Your task to perform on an android device: turn on priority inbox in the gmail app Image 0: 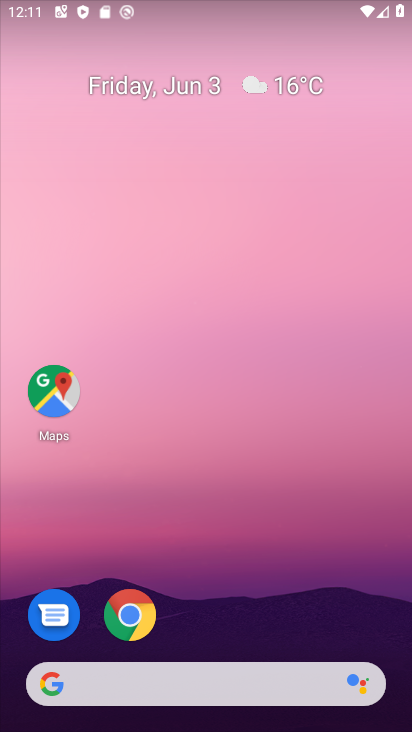
Step 0: drag from (238, 630) to (251, 340)
Your task to perform on an android device: turn on priority inbox in the gmail app Image 1: 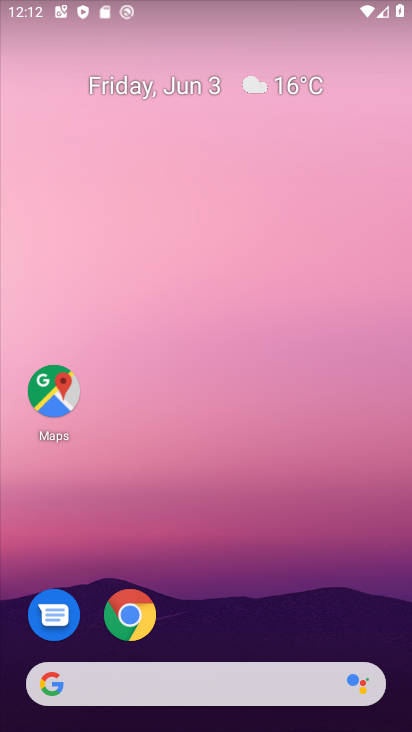
Step 1: drag from (217, 605) to (232, 289)
Your task to perform on an android device: turn on priority inbox in the gmail app Image 2: 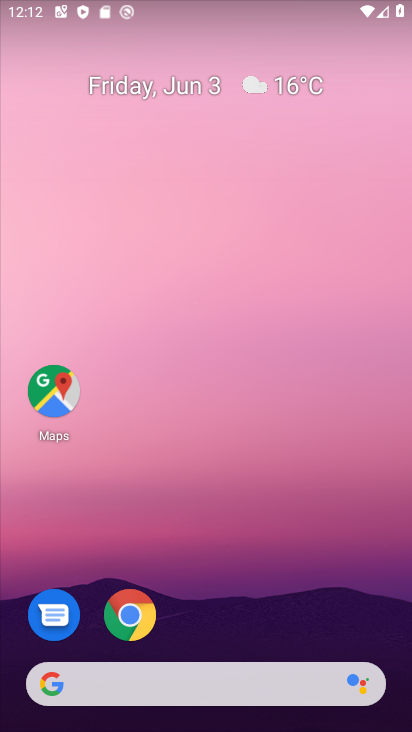
Step 2: drag from (216, 537) to (236, 225)
Your task to perform on an android device: turn on priority inbox in the gmail app Image 3: 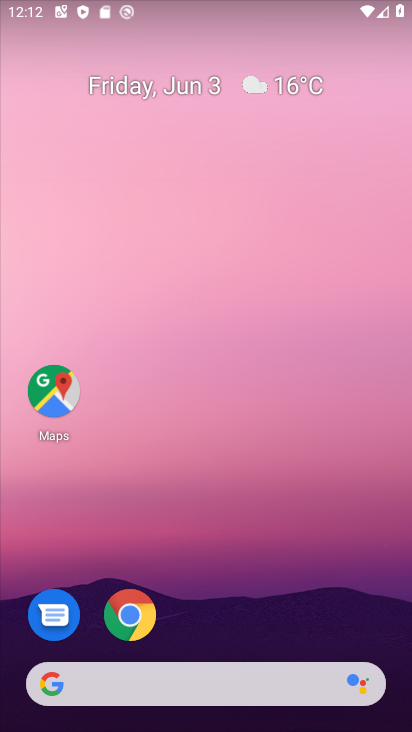
Step 3: drag from (220, 500) to (237, 209)
Your task to perform on an android device: turn on priority inbox in the gmail app Image 4: 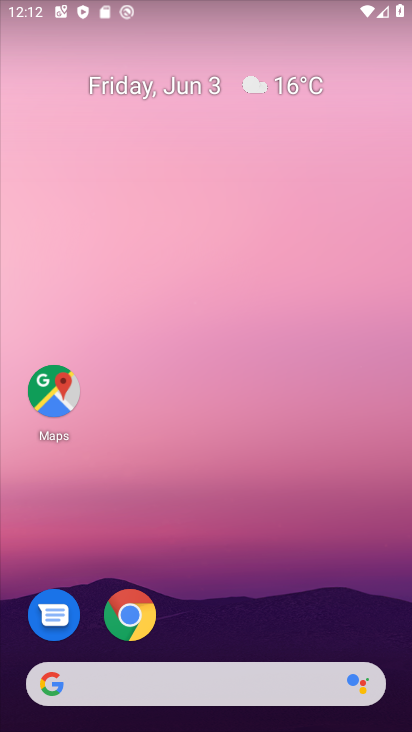
Step 4: drag from (186, 612) to (261, 122)
Your task to perform on an android device: turn on priority inbox in the gmail app Image 5: 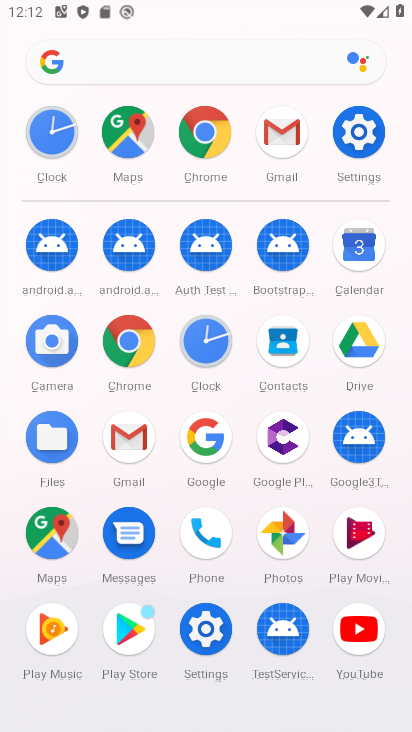
Step 5: click (276, 118)
Your task to perform on an android device: turn on priority inbox in the gmail app Image 6: 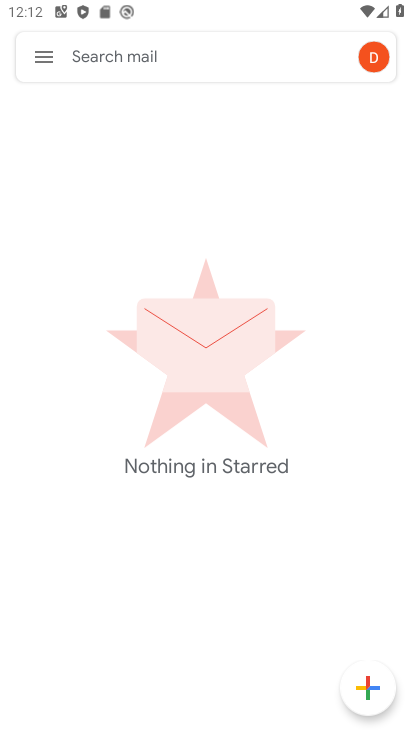
Step 6: click (33, 51)
Your task to perform on an android device: turn on priority inbox in the gmail app Image 7: 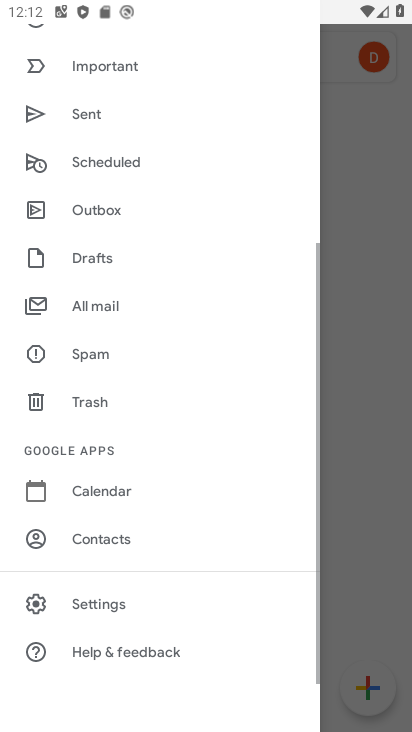
Step 7: click (122, 601)
Your task to perform on an android device: turn on priority inbox in the gmail app Image 8: 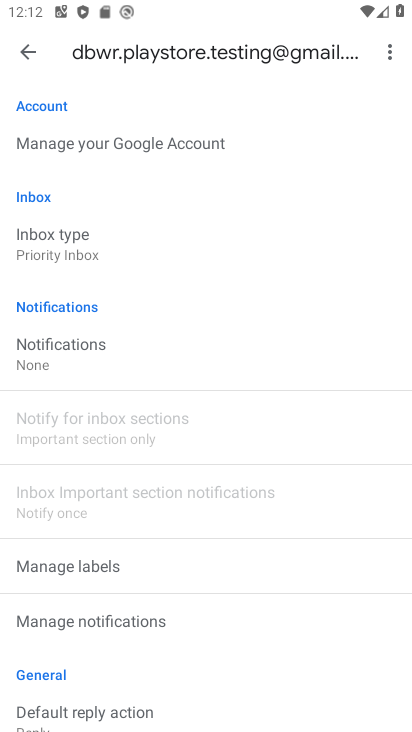
Step 8: click (81, 247)
Your task to perform on an android device: turn on priority inbox in the gmail app Image 9: 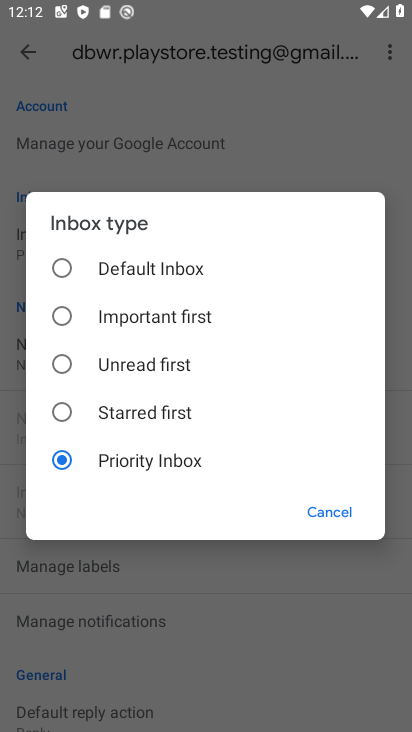
Step 9: click (223, 103)
Your task to perform on an android device: turn on priority inbox in the gmail app Image 10: 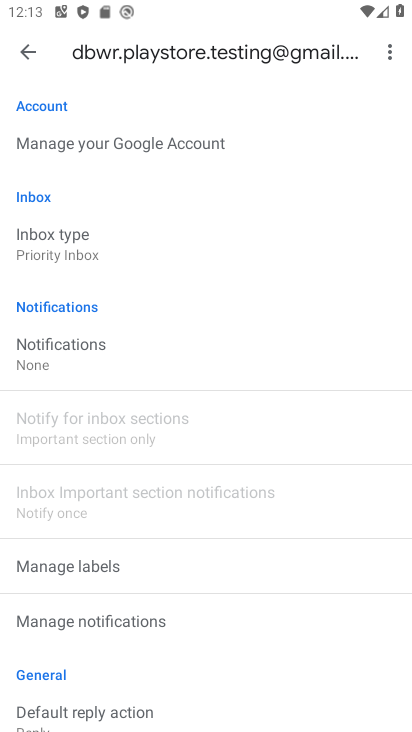
Step 10: click (87, 469)
Your task to perform on an android device: turn on priority inbox in the gmail app Image 11: 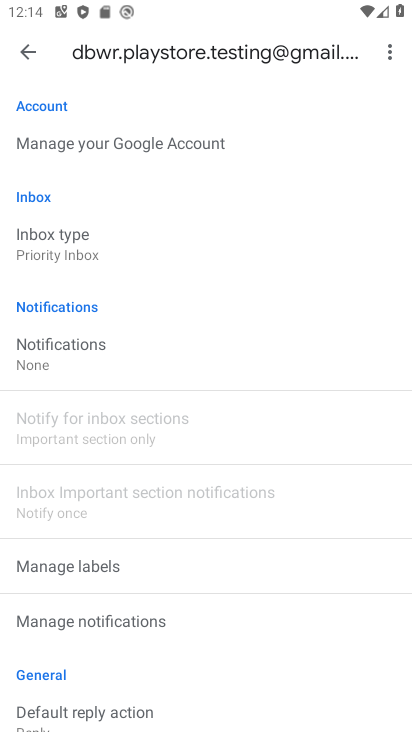
Step 11: task complete